Your task to perform on an android device: delete a single message in the gmail app Image 0: 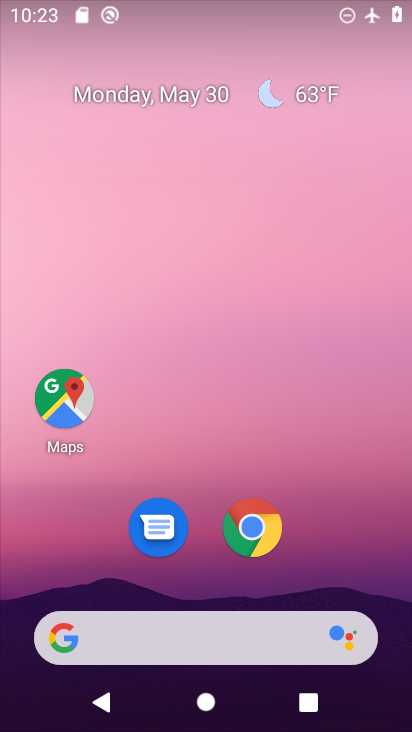
Step 0: drag from (334, 418) to (314, 259)
Your task to perform on an android device: delete a single message in the gmail app Image 1: 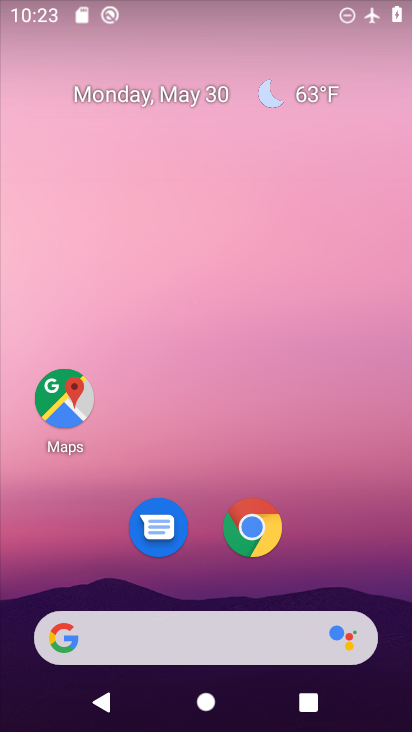
Step 1: drag from (289, 553) to (276, 187)
Your task to perform on an android device: delete a single message in the gmail app Image 2: 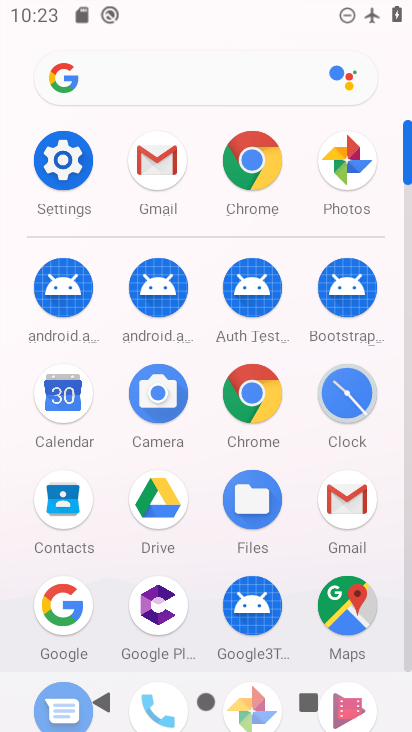
Step 2: drag from (203, 525) to (212, 404)
Your task to perform on an android device: delete a single message in the gmail app Image 3: 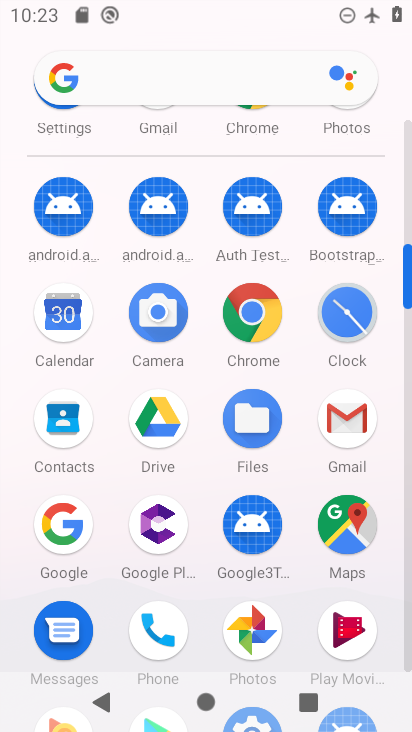
Step 3: click (345, 411)
Your task to perform on an android device: delete a single message in the gmail app Image 4: 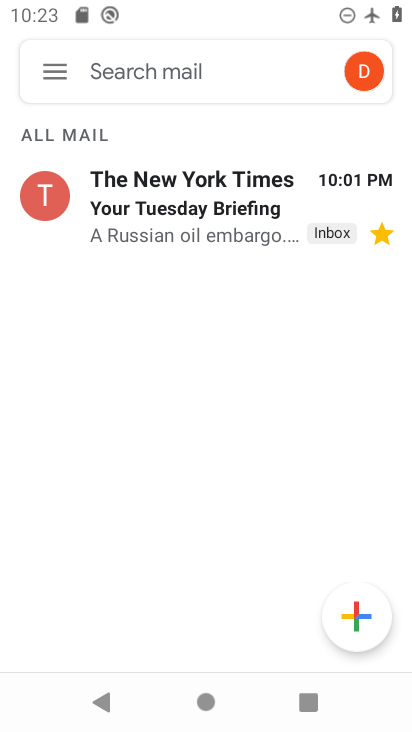
Step 4: click (55, 67)
Your task to perform on an android device: delete a single message in the gmail app Image 5: 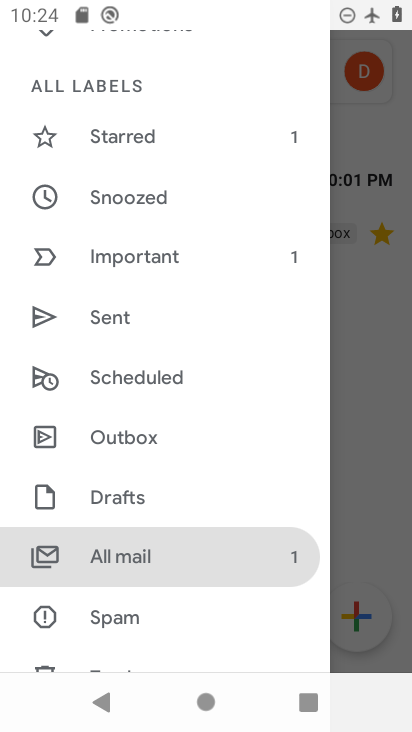
Step 5: click (161, 551)
Your task to perform on an android device: delete a single message in the gmail app Image 6: 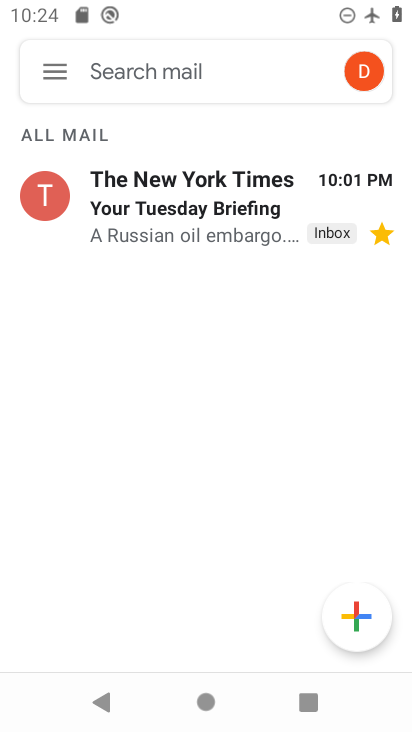
Step 6: click (49, 185)
Your task to perform on an android device: delete a single message in the gmail app Image 7: 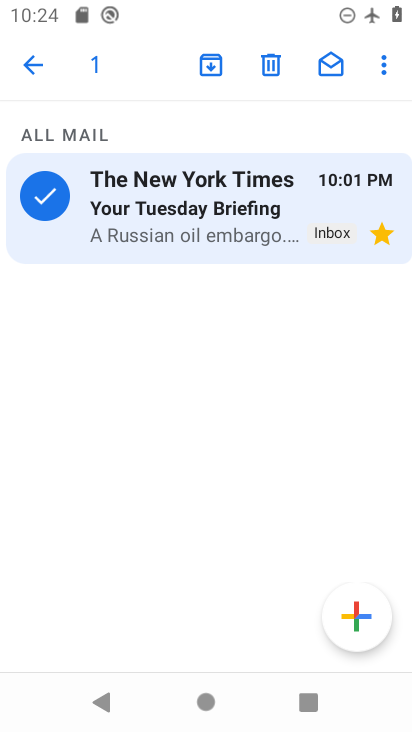
Step 7: click (266, 62)
Your task to perform on an android device: delete a single message in the gmail app Image 8: 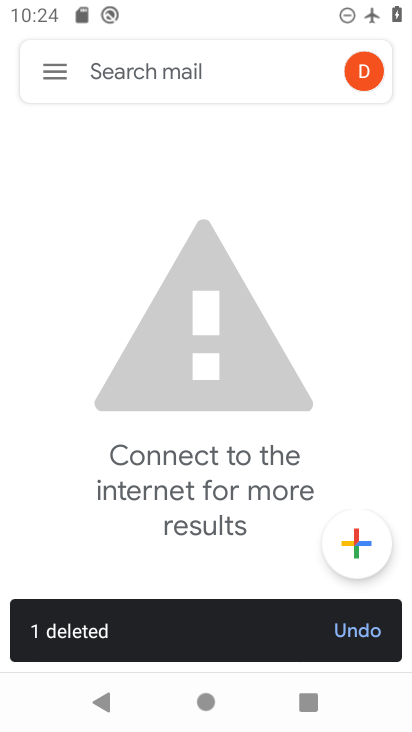
Step 8: task complete